Your task to perform on an android device: turn on notifications settings in the gmail app Image 0: 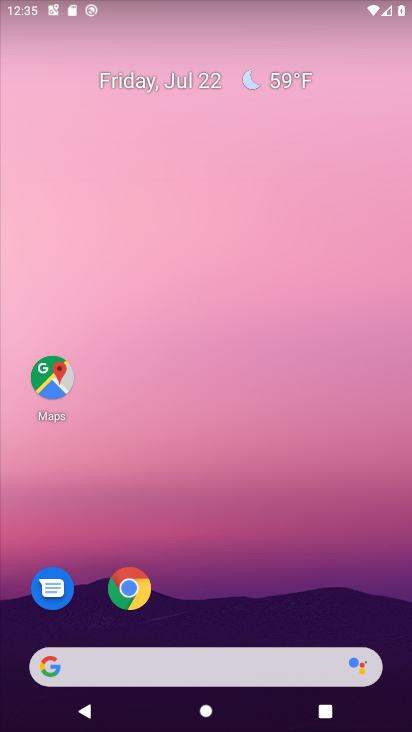
Step 0: drag from (201, 569) to (201, 191)
Your task to perform on an android device: turn on notifications settings in the gmail app Image 1: 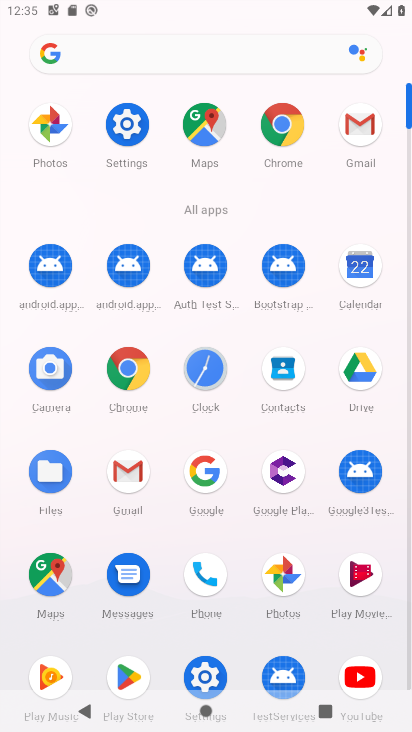
Step 1: click (127, 465)
Your task to perform on an android device: turn on notifications settings in the gmail app Image 2: 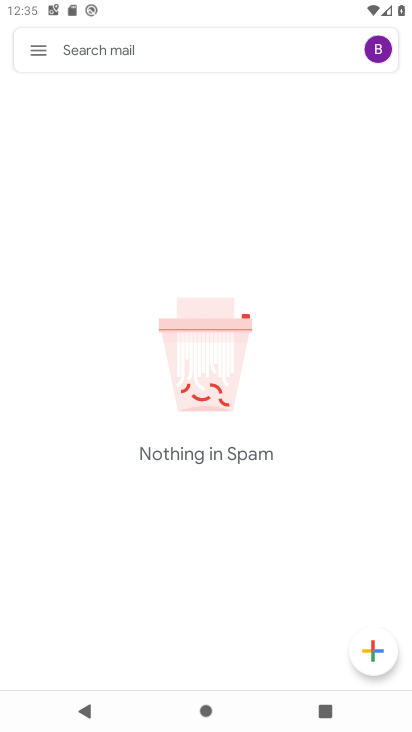
Step 2: click (28, 51)
Your task to perform on an android device: turn on notifications settings in the gmail app Image 3: 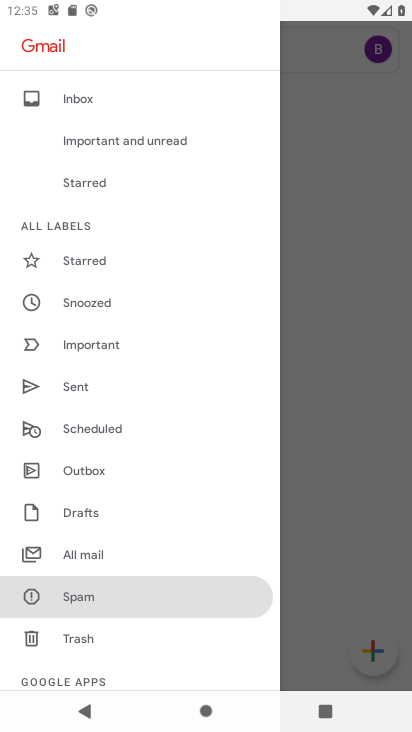
Step 3: drag from (95, 558) to (95, 303)
Your task to perform on an android device: turn on notifications settings in the gmail app Image 4: 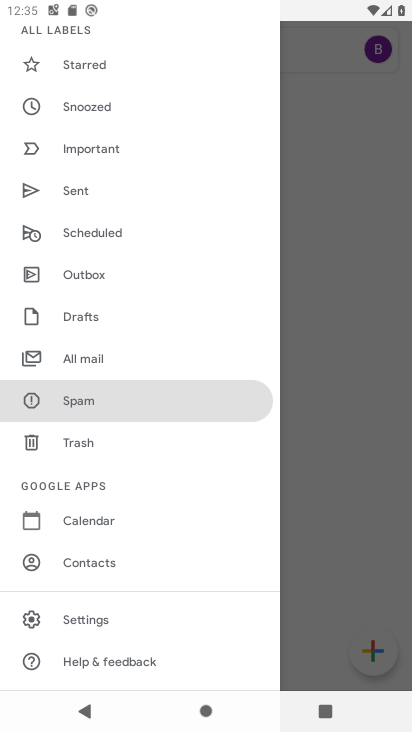
Step 4: click (75, 619)
Your task to perform on an android device: turn on notifications settings in the gmail app Image 5: 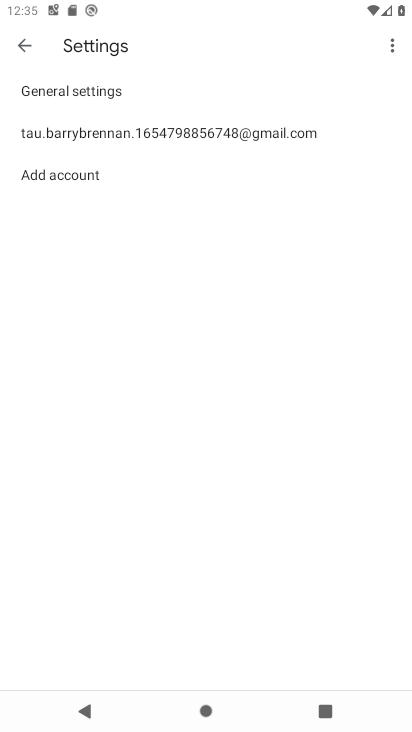
Step 5: click (137, 123)
Your task to perform on an android device: turn on notifications settings in the gmail app Image 6: 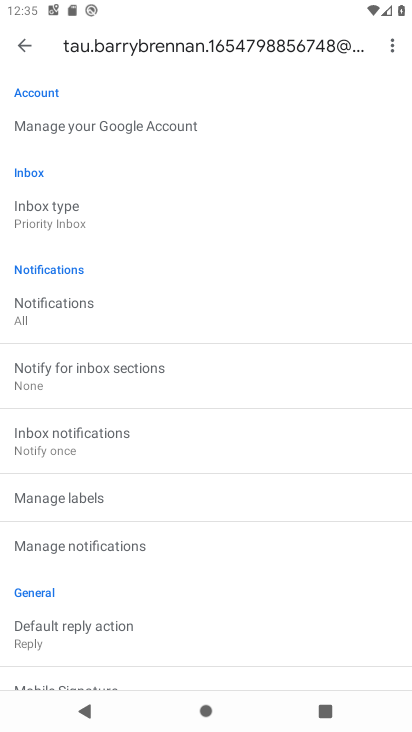
Step 6: click (60, 542)
Your task to perform on an android device: turn on notifications settings in the gmail app Image 7: 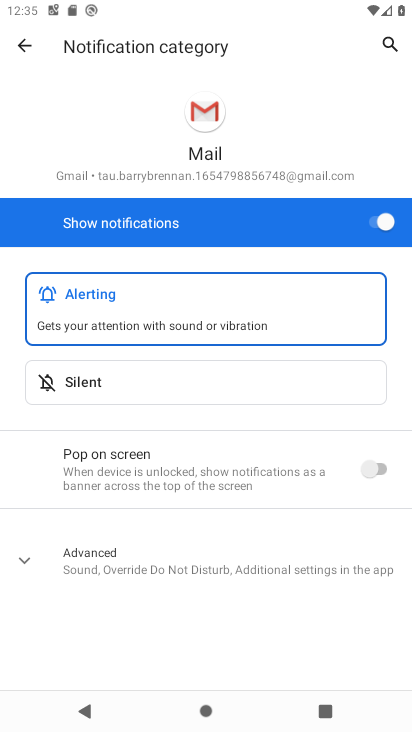
Step 7: task complete